Your task to perform on an android device: install app "Life360: Find Family & Friends" Image 0: 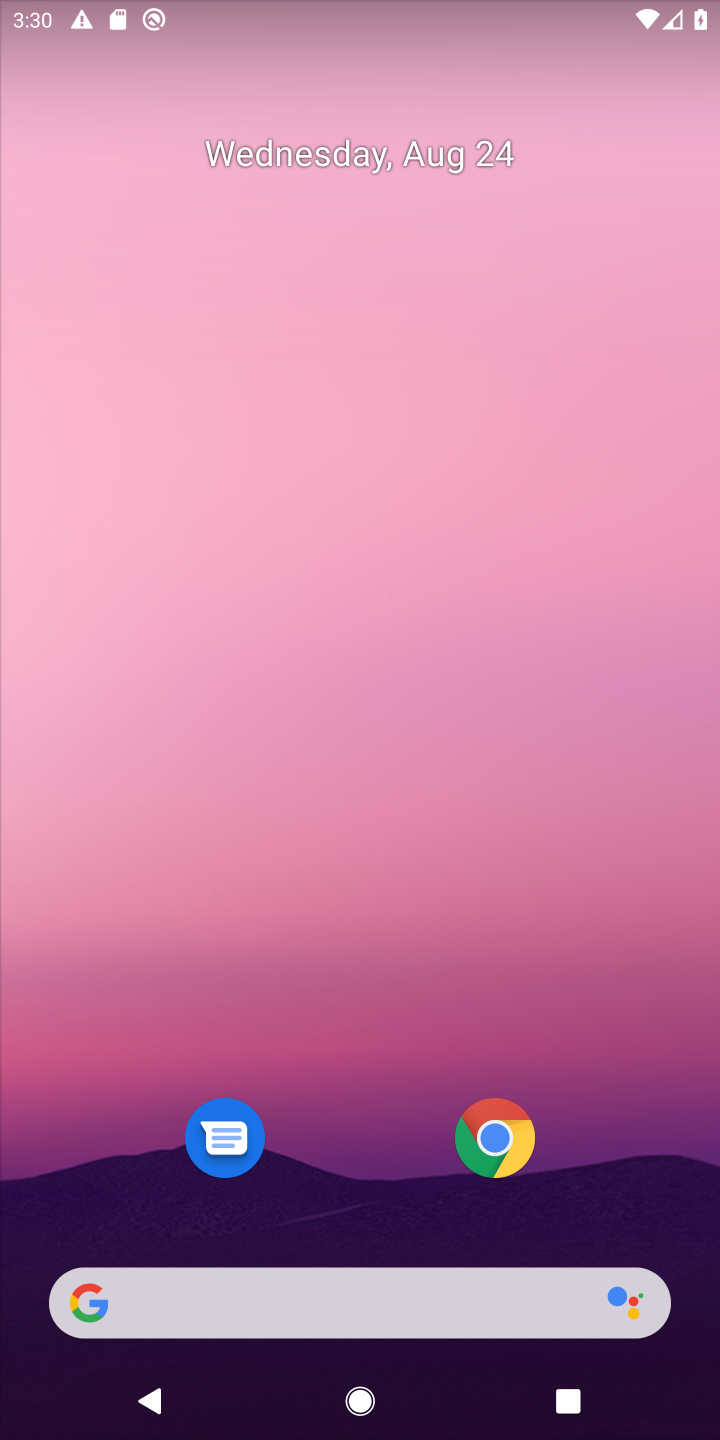
Step 0: drag from (430, 852) to (442, 103)
Your task to perform on an android device: install app "Life360: Find Family & Friends" Image 1: 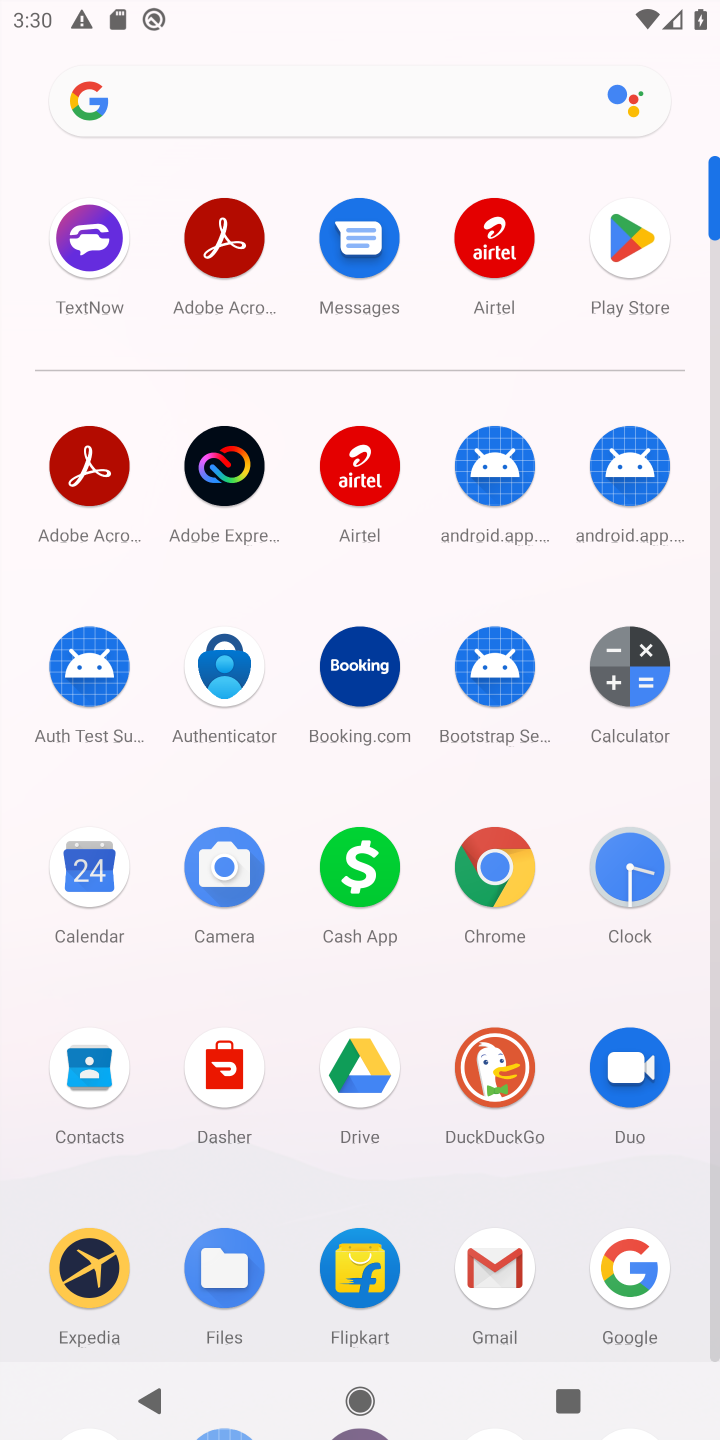
Step 1: click (636, 234)
Your task to perform on an android device: install app "Life360: Find Family & Friends" Image 2: 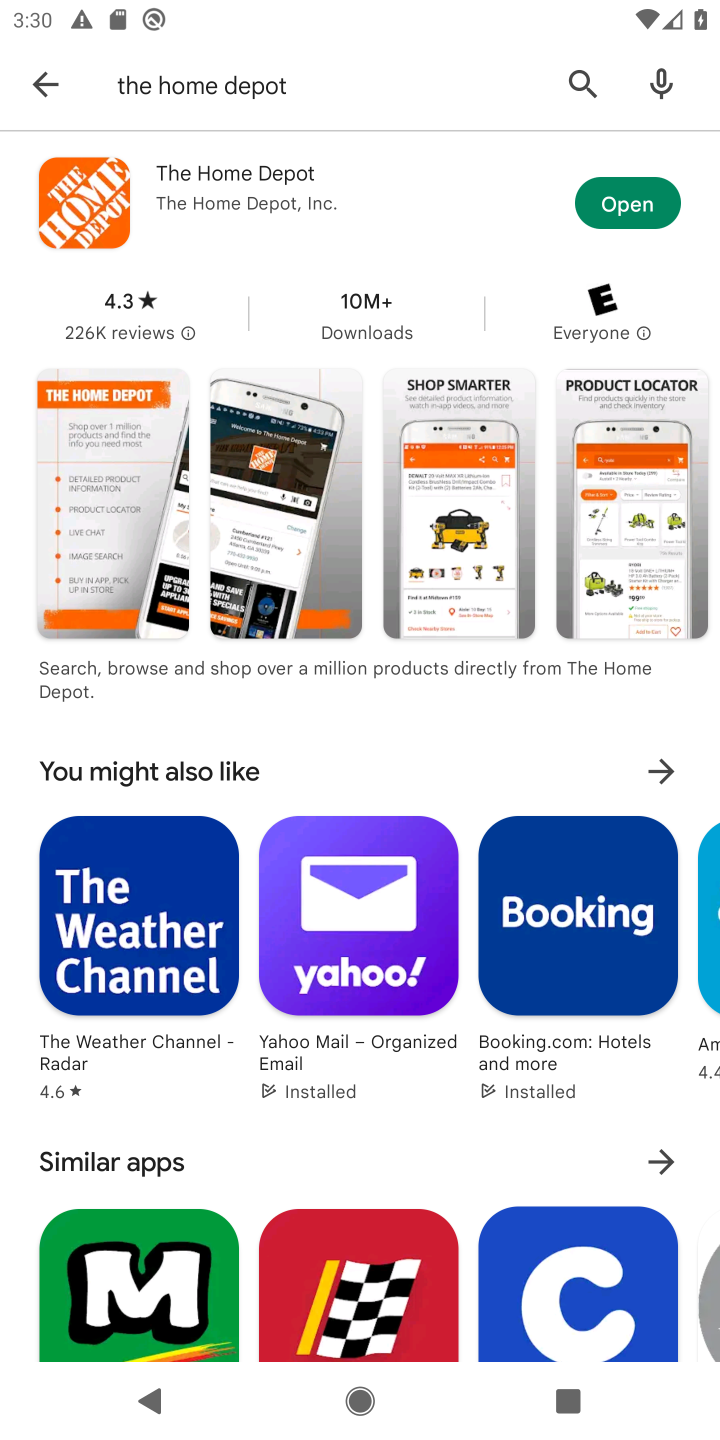
Step 2: click (585, 84)
Your task to perform on an android device: install app "Life360: Find Family & Friends" Image 3: 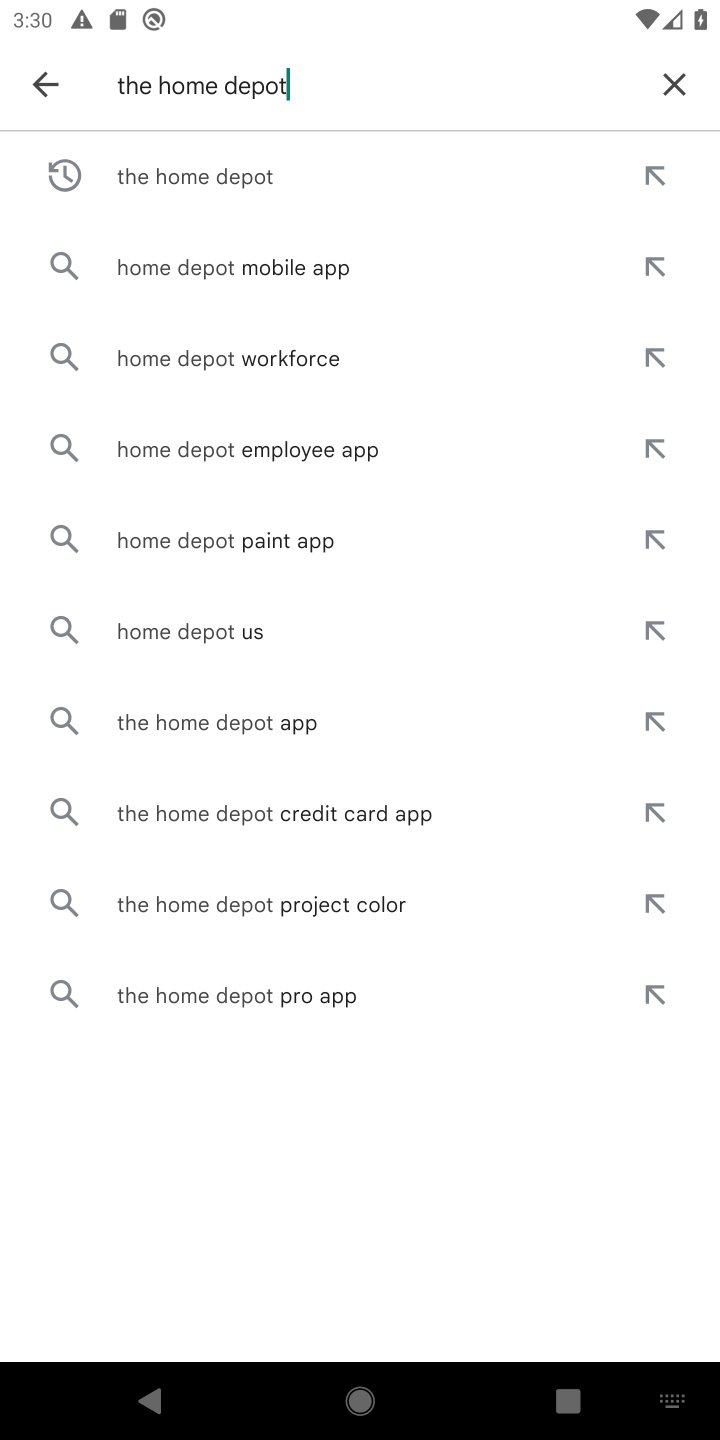
Step 3: click (664, 76)
Your task to perform on an android device: install app "Life360: Find Family & Friends" Image 4: 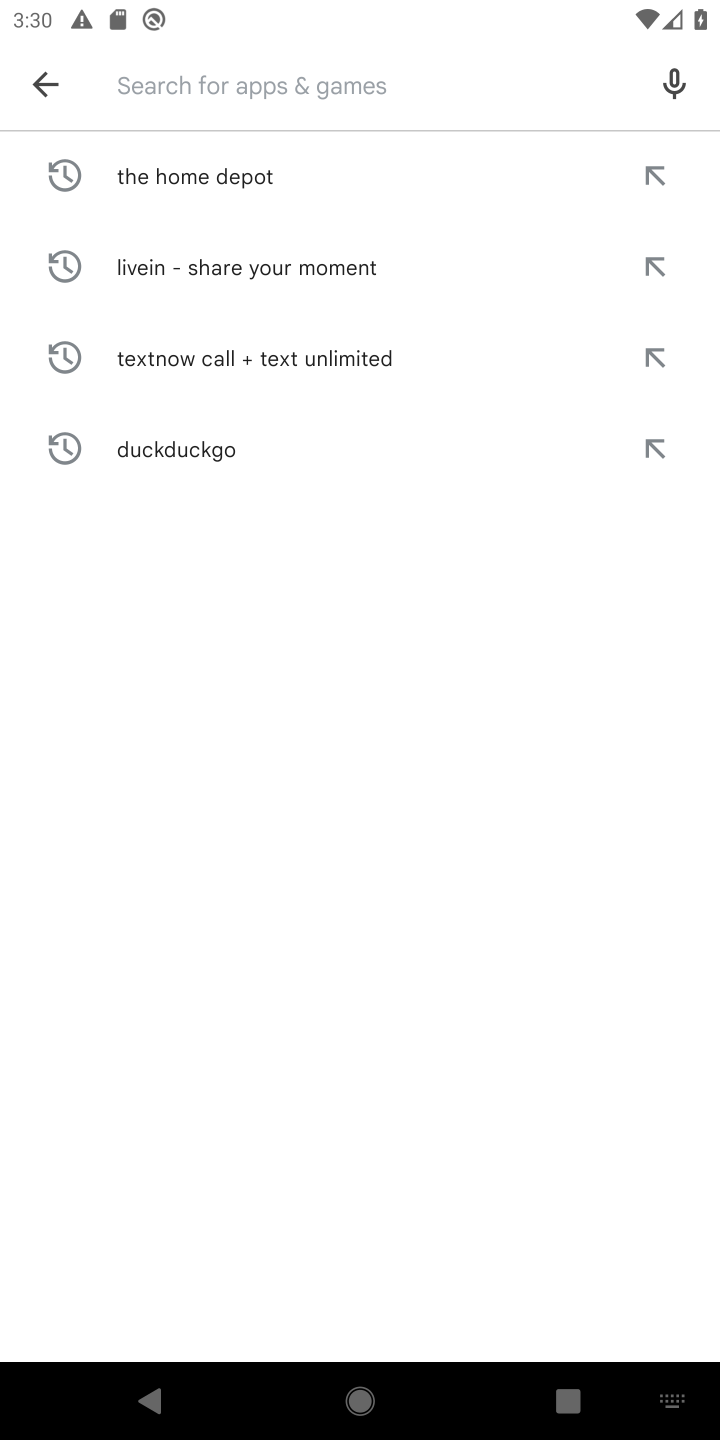
Step 4: type "Life360: Find Family & Friends"
Your task to perform on an android device: install app "Life360: Find Family & Friends" Image 5: 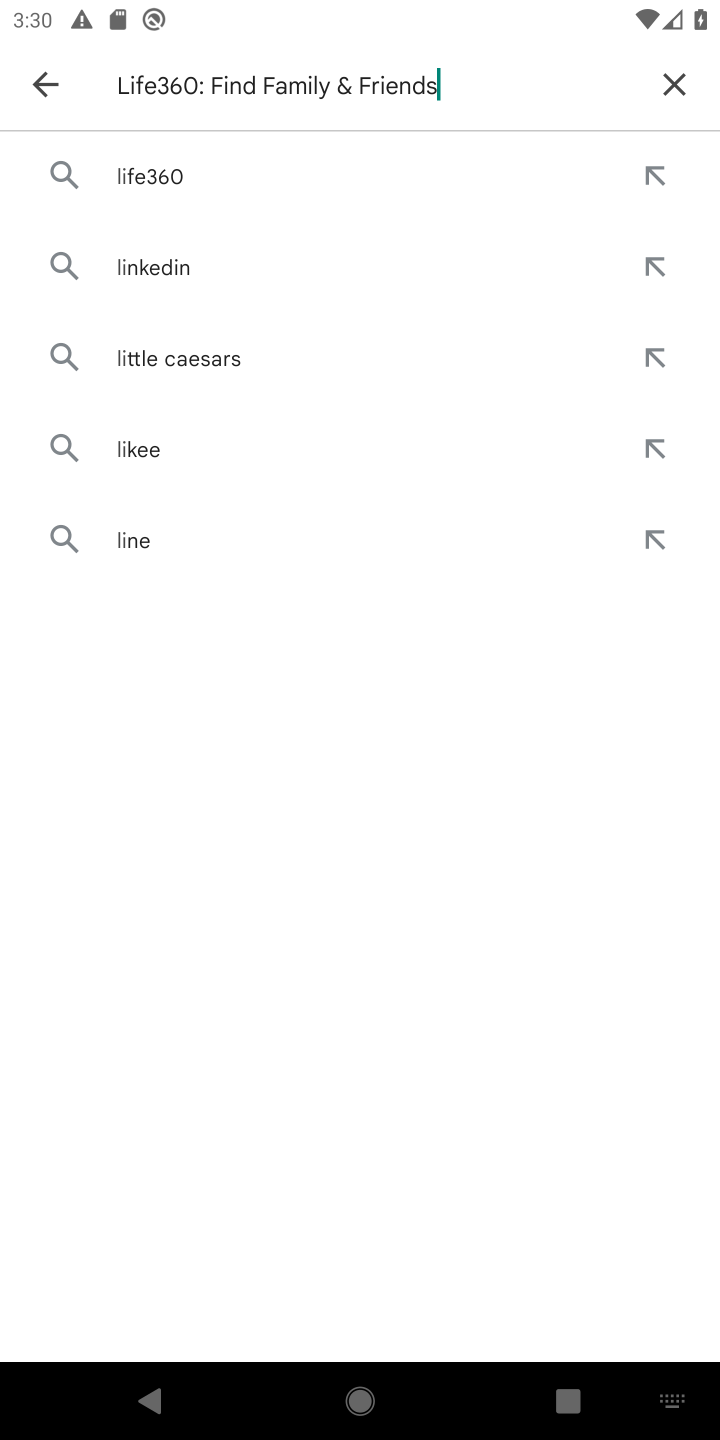
Step 5: type ""
Your task to perform on an android device: install app "Life360: Find Family & Friends" Image 6: 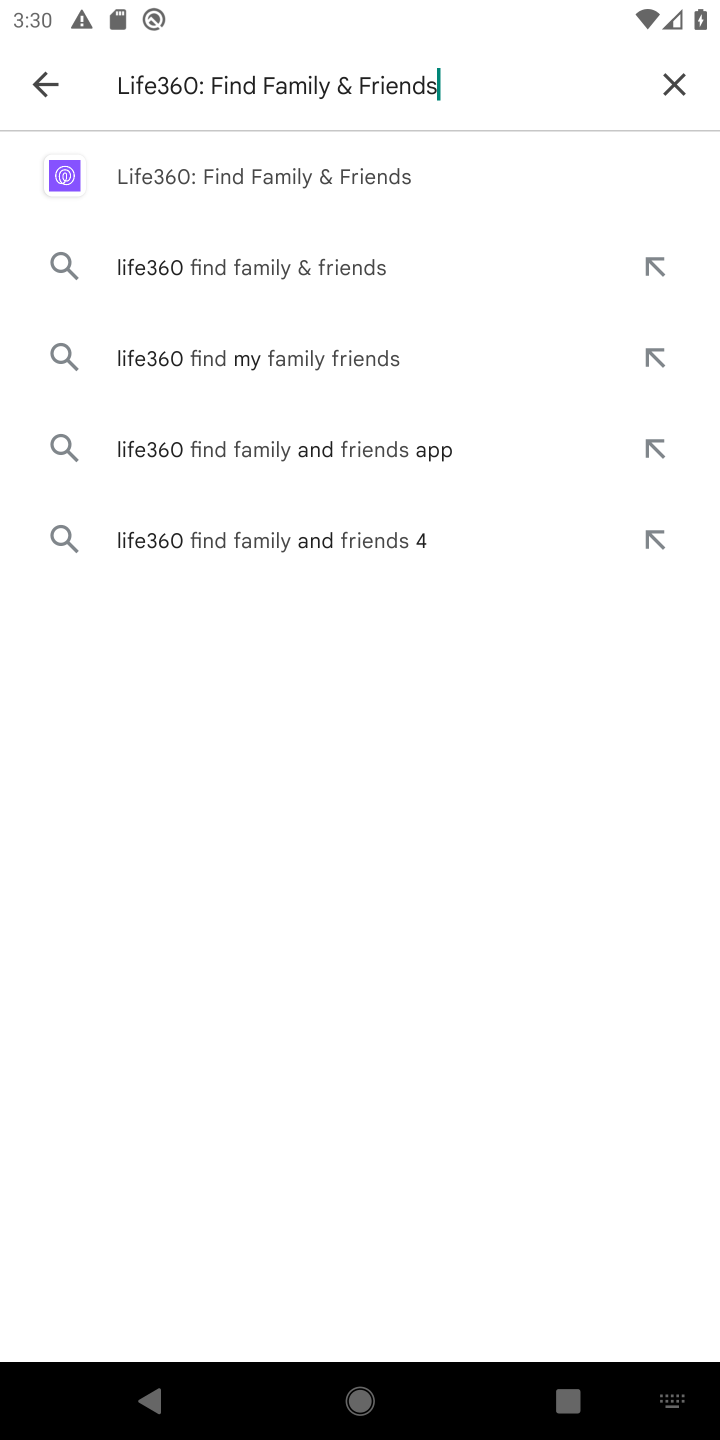
Step 6: click (329, 175)
Your task to perform on an android device: install app "Life360: Find Family & Friends" Image 7: 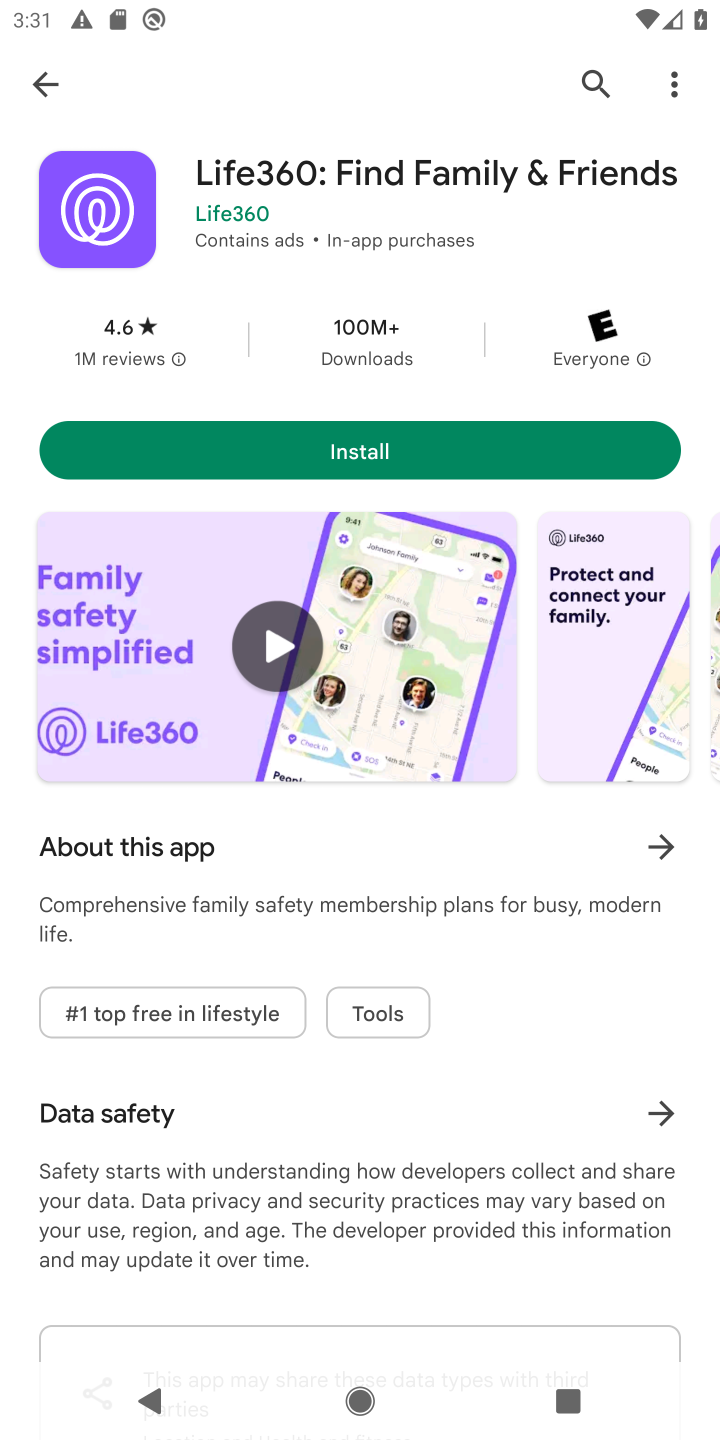
Step 7: click (344, 450)
Your task to perform on an android device: install app "Life360: Find Family & Friends" Image 8: 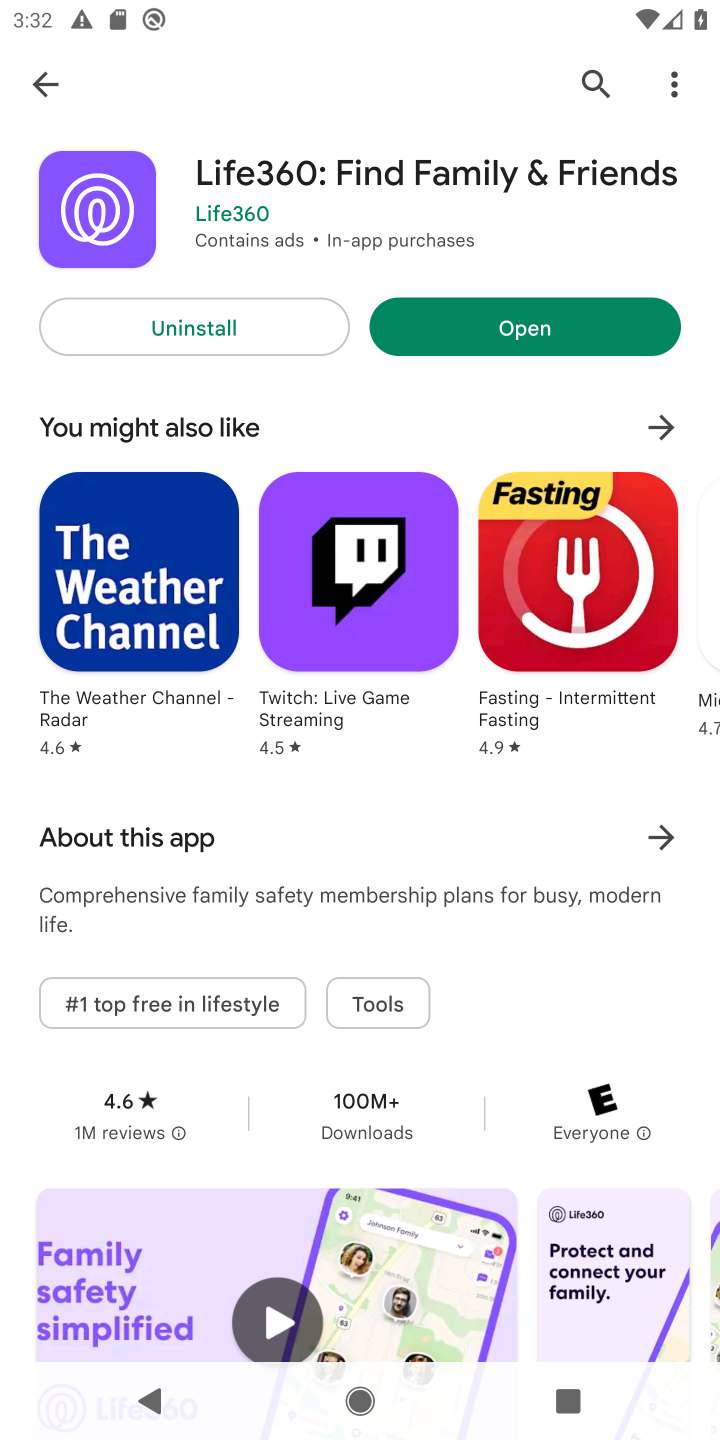
Step 8: task complete